Your task to perform on an android device: Play the last video I watched on Youtube Image 0: 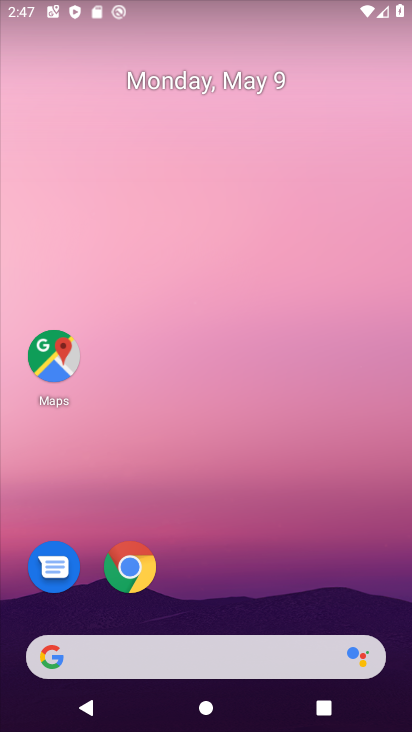
Step 0: drag from (276, 483) to (305, 19)
Your task to perform on an android device: Play the last video I watched on Youtube Image 1: 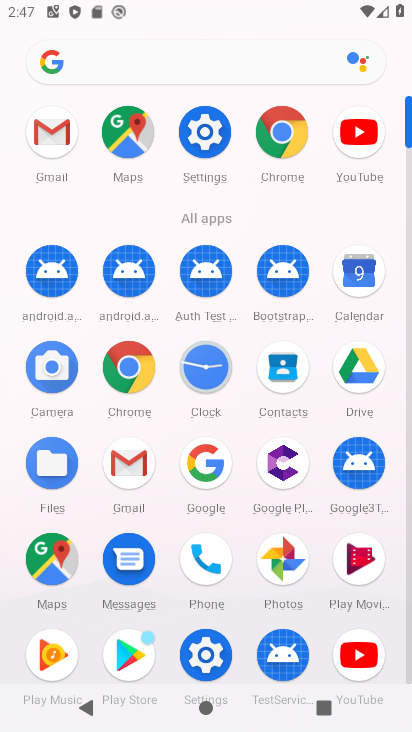
Step 1: click (356, 141)
Your task to perform on an android device: Play the last video I watched on Youtube Image 2: 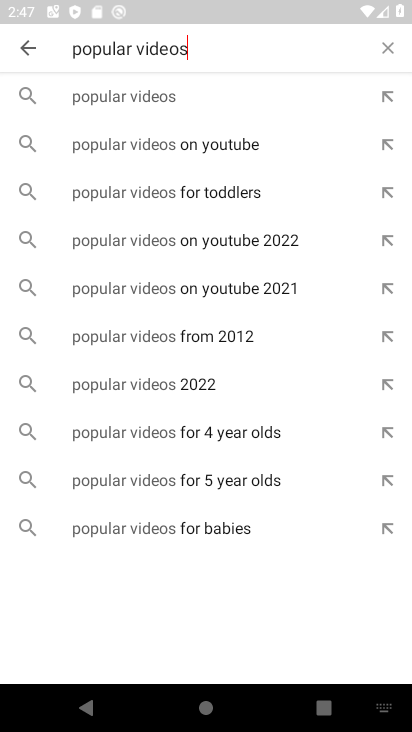
Step 2: click (29, 52)
Your task to perform on an android device: Play the last video I watched on Youtube Image 3: 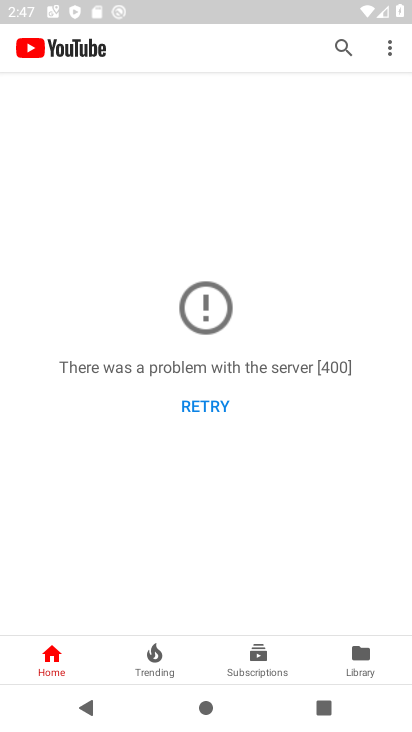
Step 3: click (352, 656)
Your task to perform on an android device: Play the last video I watched on Youtube Image 4: 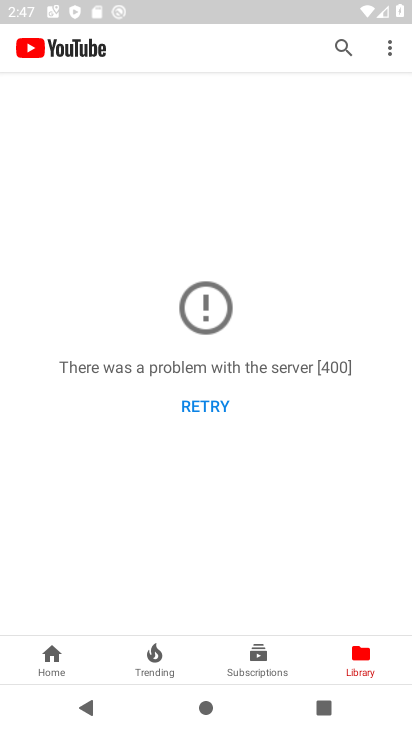
Step 4: click (215, 411)
Your task to perform on an android device: Play the last video I watched on Youtube Image 5: 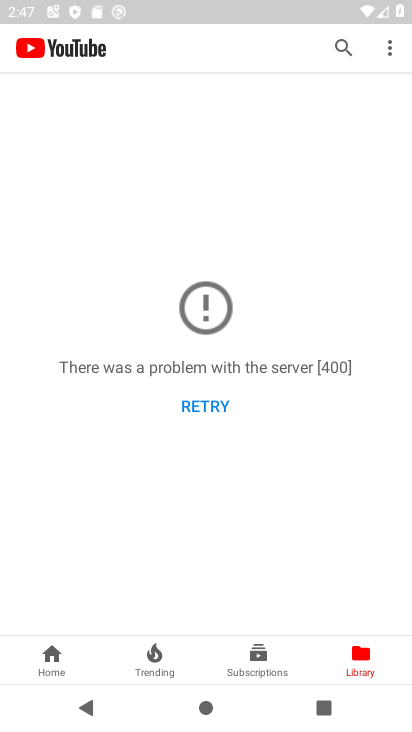
Step 5: click (211, 407)
Your task to perform on an android device: Play the last video I watched on Youtube Image 6: 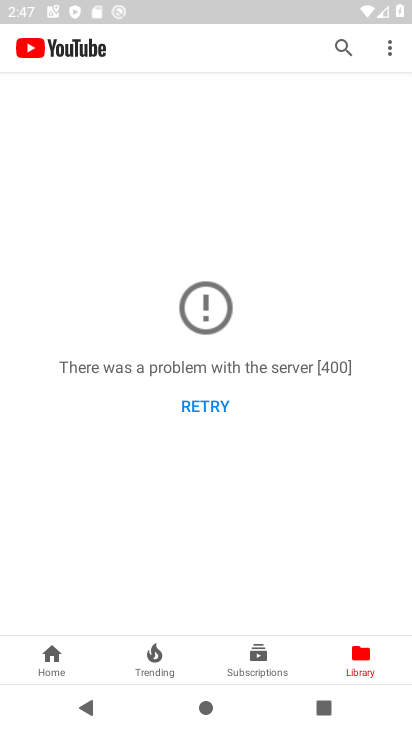
Step 6: click (211, 408)
Your task to perform on an android device: Play the last video I watched on Youtube Image 7: 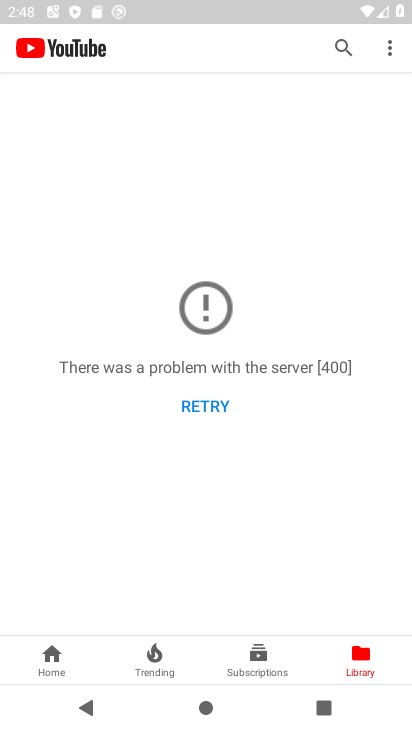
Step 7: task complete